Your task to perform on an android device: clear history in the chrome app Image 0: 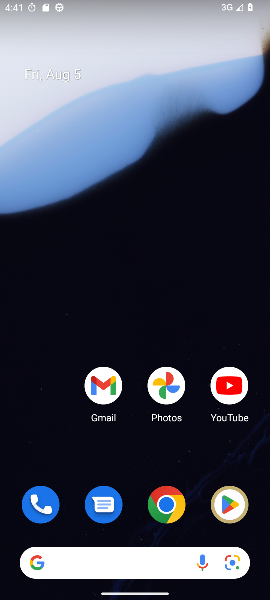
Step 0: click (166, 512)
Your task to perform on an android device: clear history in the chrome app Image 1: 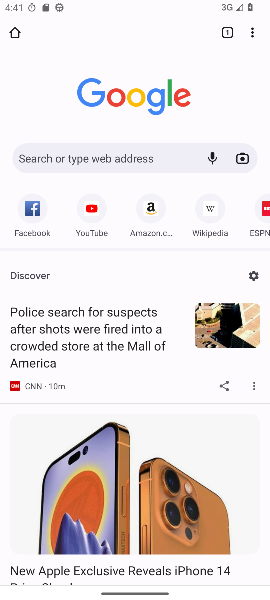
Step 1: click (255, 32)
Your task to perform on an android device: clear history in the chrome app Image 2: 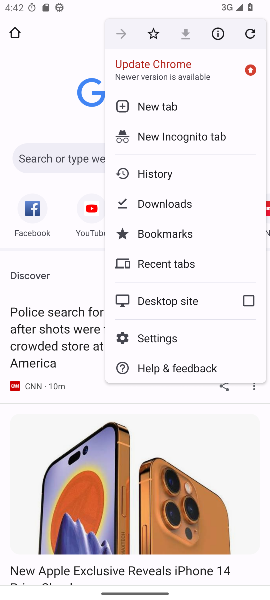
Step 2: click (164, 178)
Your task to perform on an android device: clear history in the chrome app Image 3: 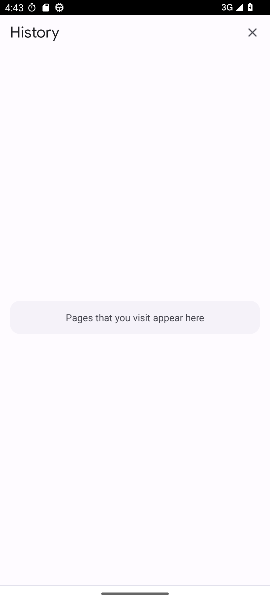
Step 3: task complete